Your task to perform on an android device: Check the weather Image 0: 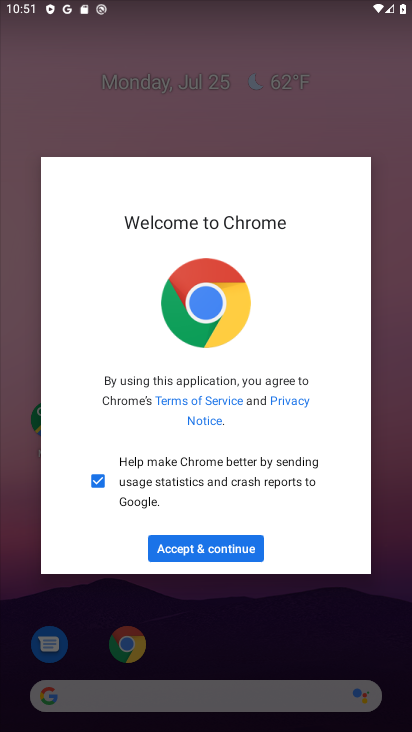
Step 0: click (235, 556)
Your task to perform on an android device: Check the weather Image 1: 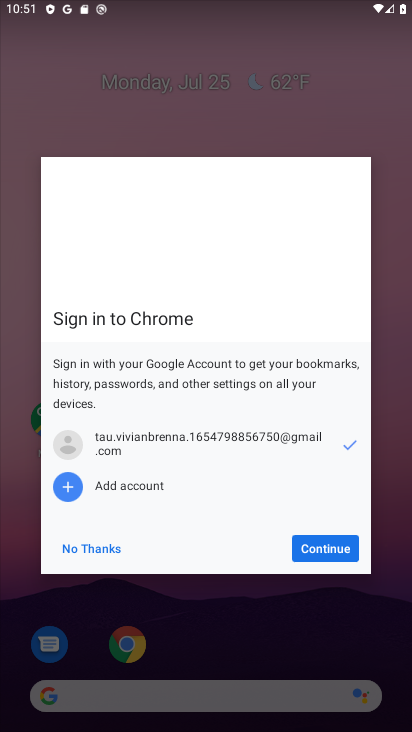
Step 1: click (320, 546)
Your task to perform on an android device: Check the weather Image 2: 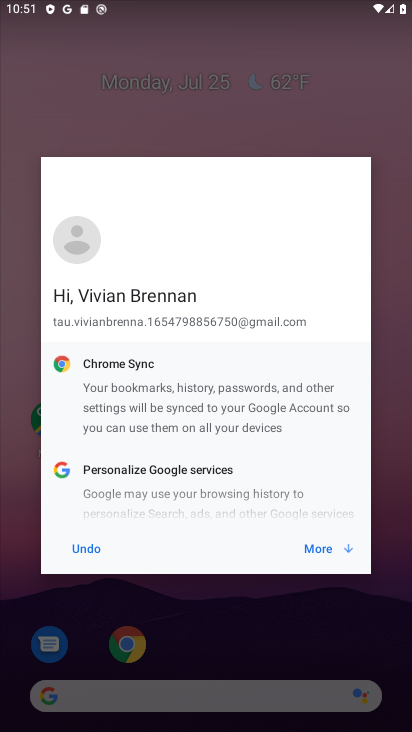
Step 2: click (320, 546)
Your task to perform on an android device: Check the weather Image 3: 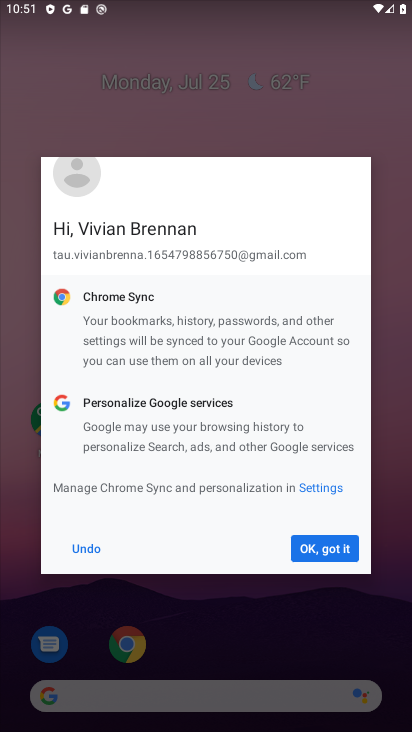
Step 3: click (320, 546)
Your task to perform on an android device: Check the weather Image 4: 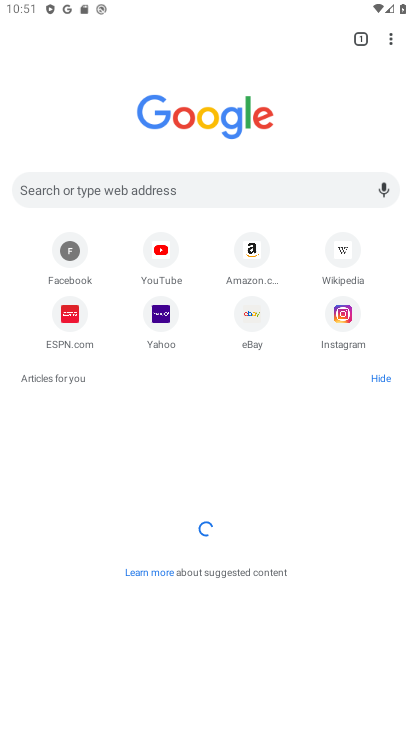
Step 4: click (259, 193)
Your task to perform on an android device: Check the weather Image 5: 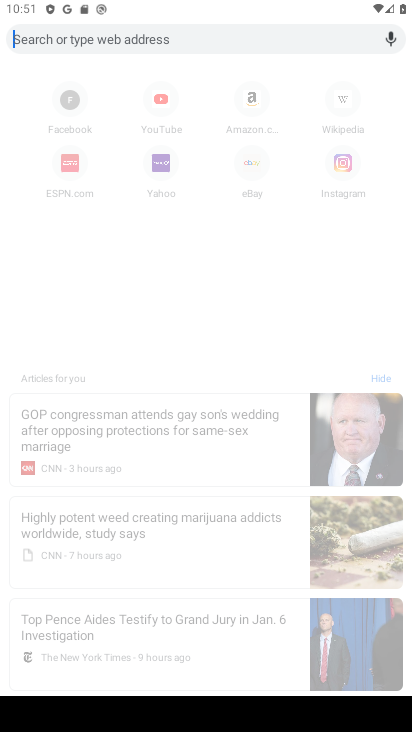
Step 5: type "Check the weather"
Your task to perform on an android device: Check the weather Image 6: 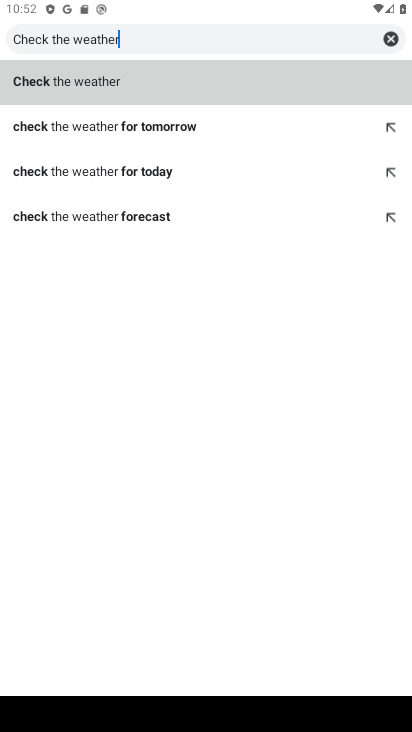
Step 6: click (309, 68)
Your task to perform on an android device: Check the weather Image 7: 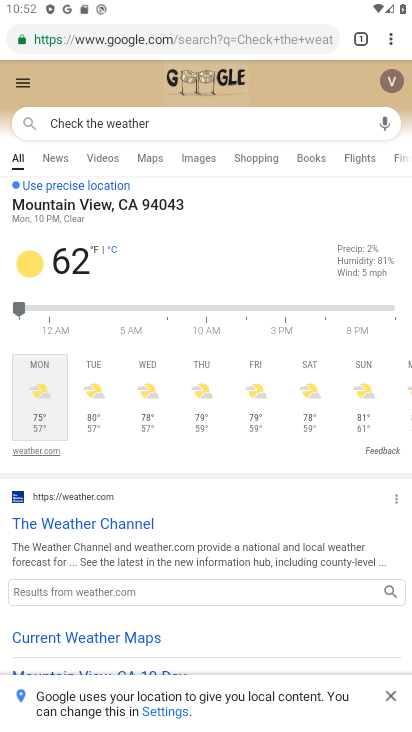
Step 7: task complete